Your task to perform on an android device: clear all cookies in the chrome app Image 0: 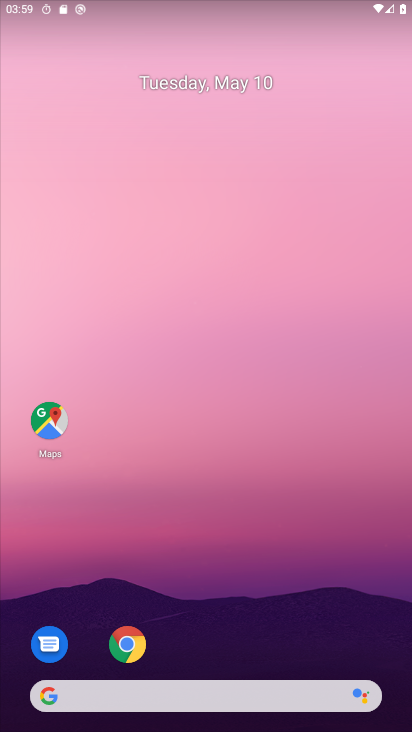
Step 0: click (51, 418)
Your task to perform on an android device: clear all cookies in the chrome app Image 1: 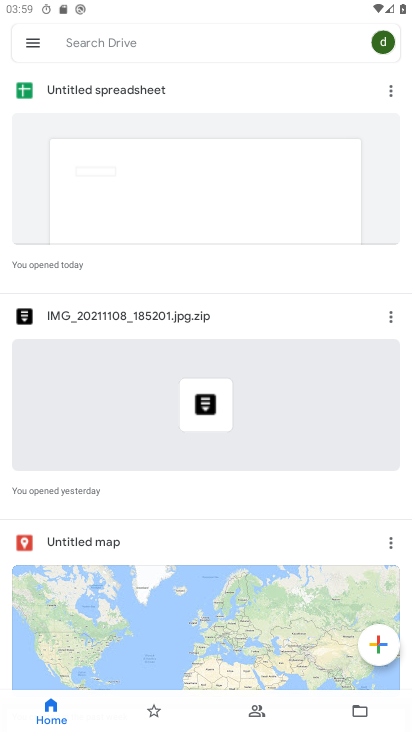
Step 1: press home button
Your task to perform on an android device: clear all cookies in the chrome app Image 2: 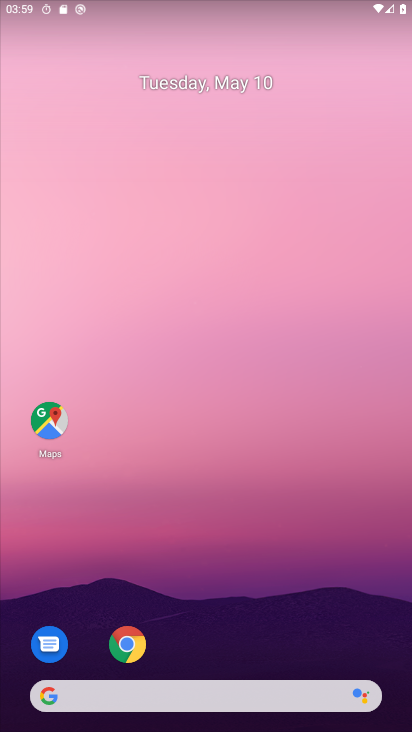
Step 2: click (128, 636)
Your task to perform on an android device: clear all cookies in the chrome app Image 3: 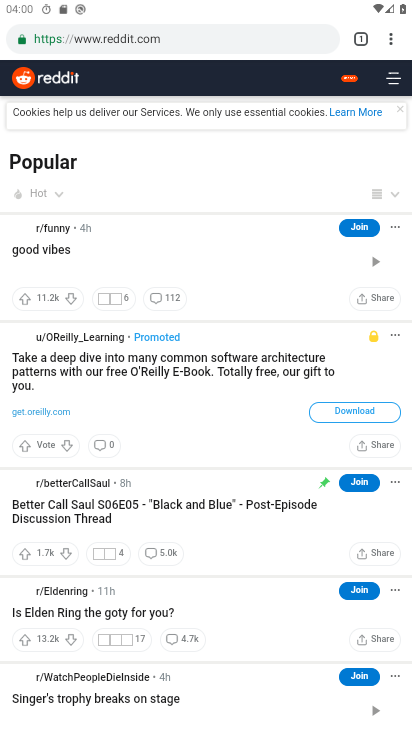
Step 3: click (390, 36)
Your task to perform on an android device: clear all cookies in the chrome app Image 4: 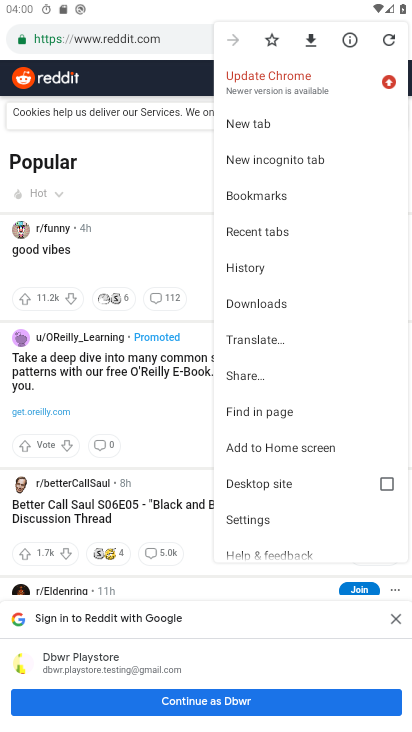
Step 4: click (271, 267)
Your task to perform on an android device: clear all cookies in the chrome app Image 5: 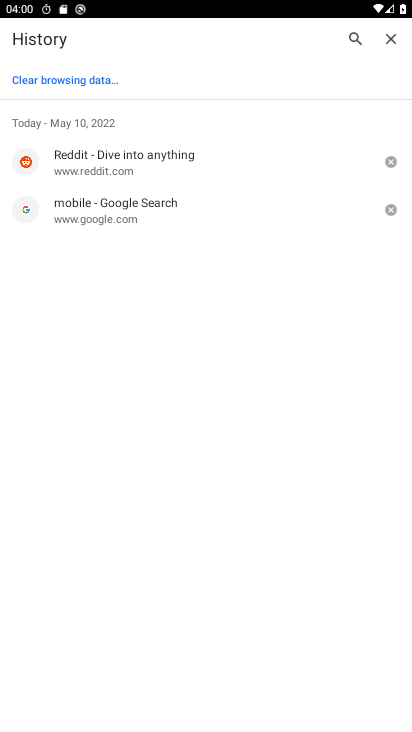
Step 5: click (59, 80)
Your task to perform on an android device: clear all cookies in the chrome app Image 6: 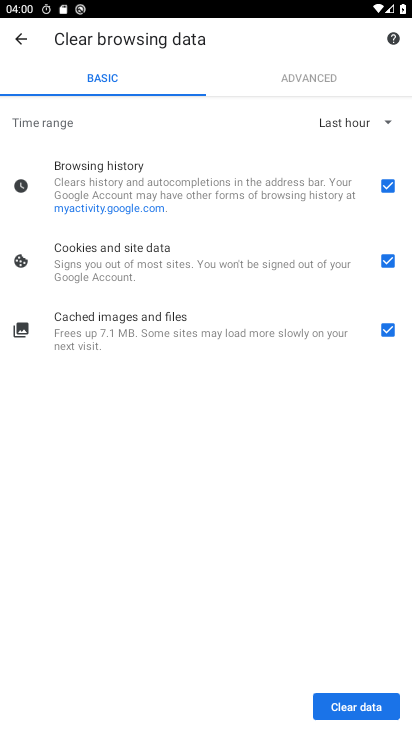
Step 6: click (389, 188)
Your task to perform on an android device: clear all cookies in the chrome app Image 7: 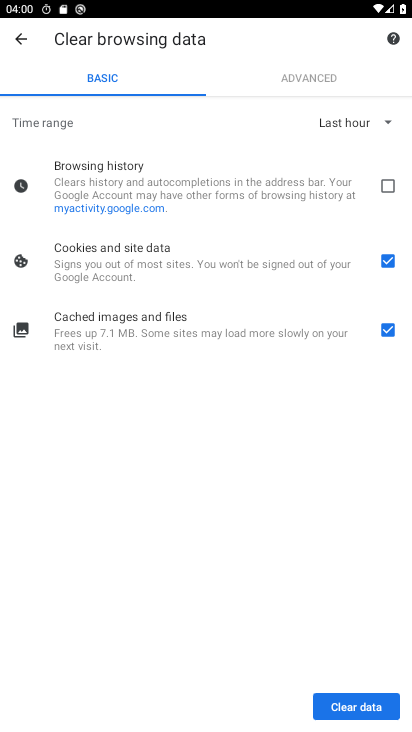
Step 7: click (389, 330)
Your task to perform on an android device: clear all cookies in the chrome app Image 8: 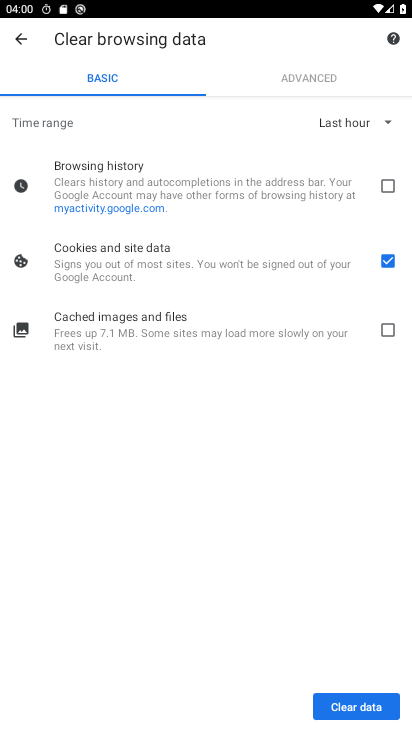
Step 8: click (344, 721)
Your task to perform on an android device: clear all cookies in the chrome app Image 9: 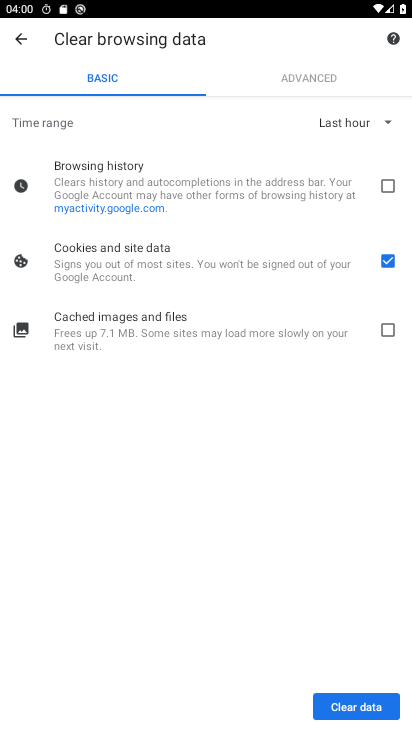
Step 9: click (344, 705)
Your task to perform on an android device: clear all cookies in the chrome app Image 10: 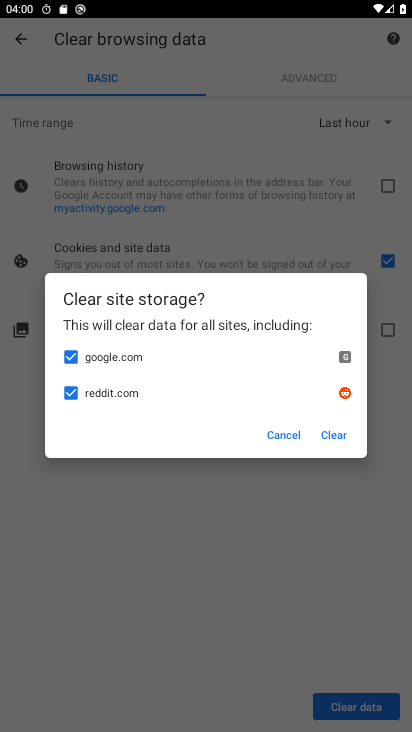
Step 10: click (336, 441)
Your task to perform on an android device: clear all cookies in the chrome app Image 11: 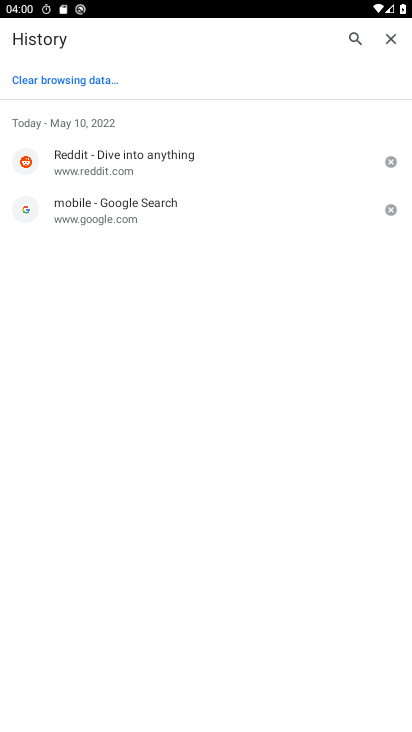
Step 11: task complete